Your task to perform on an android device: Search for Mexican restaurants on Maps Image 0: 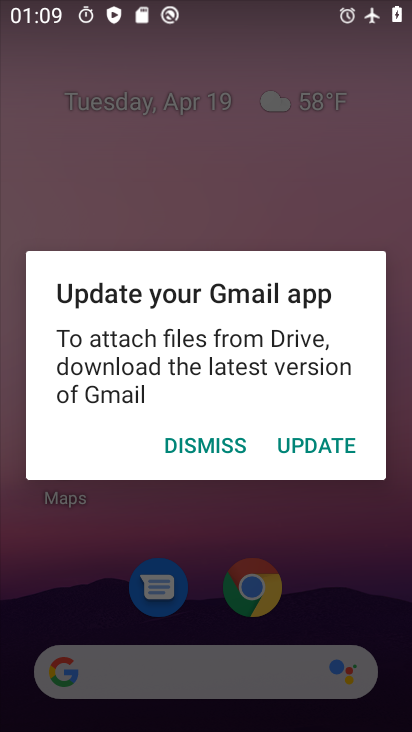
Step 0: press home button
Your task to perform on an android device: Search for Mexican restaurants on Maps Image 1: 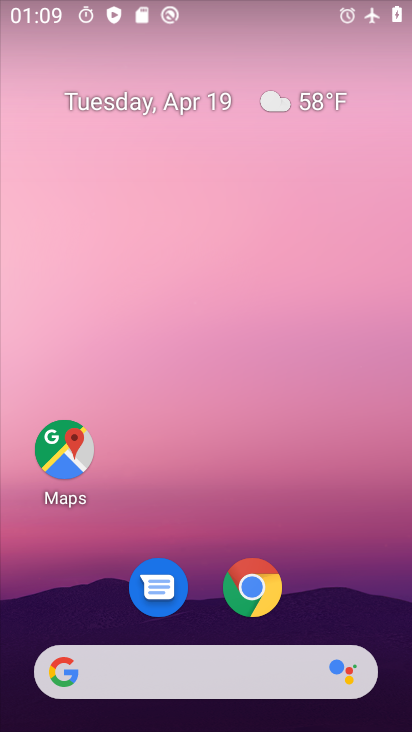
Step 1: click (75, 439)
Your task to perform on an android device: Search for Mexican restaurants on Maps Image 2: 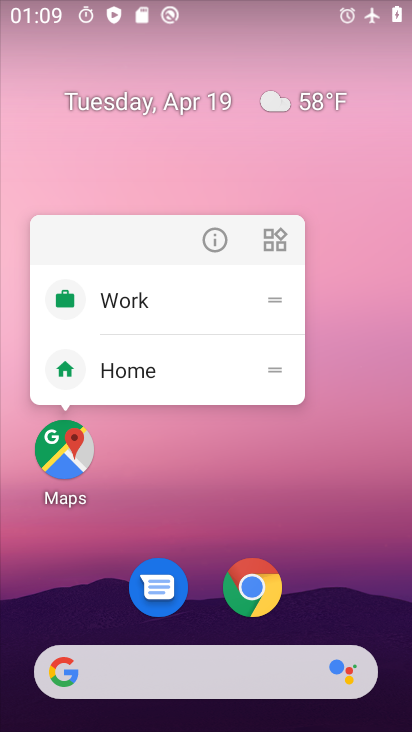
Step 2: click (49, 433)
Your task to perform on an android device: Search for Mexican restaurants on Maps Image 3: 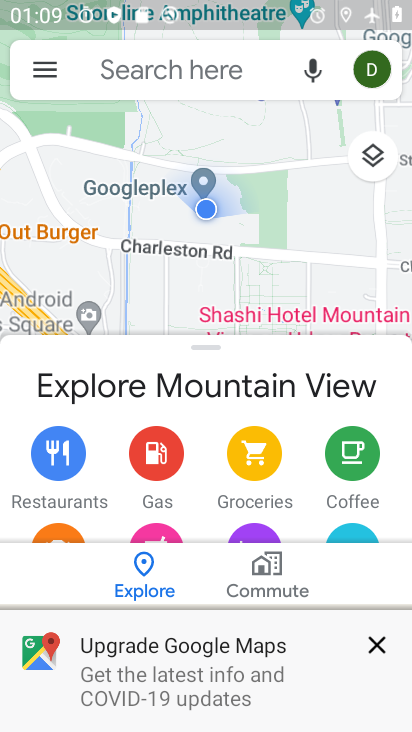
Step 3: click (376, 645)
Your task to perform on an android device: Search for Mexican restaurants on Maps Image 4: 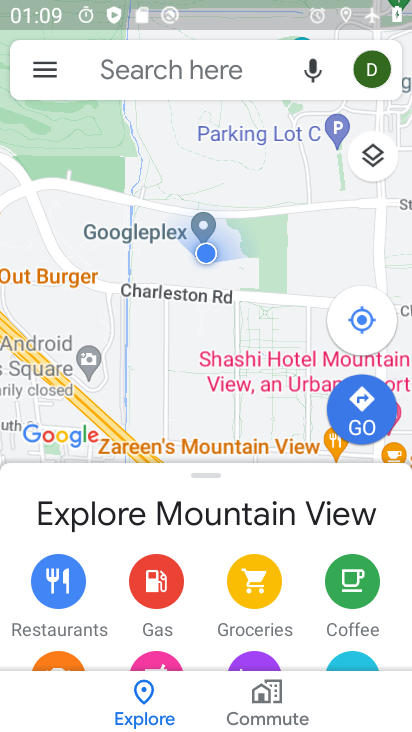
Step 4: click (194, 74)
Your task to perform on an android device: Search for Mexican restaurants on Maps Image 5: 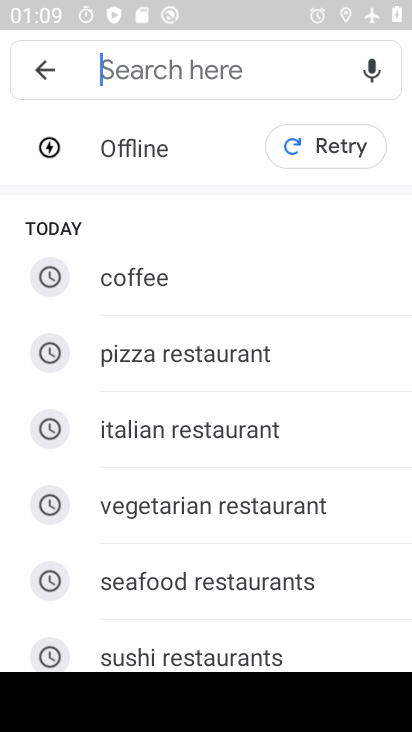
Step 5: type "mexic"
Your task to perform on an android device: Search for Mexican restaurants on Maps Image 6: 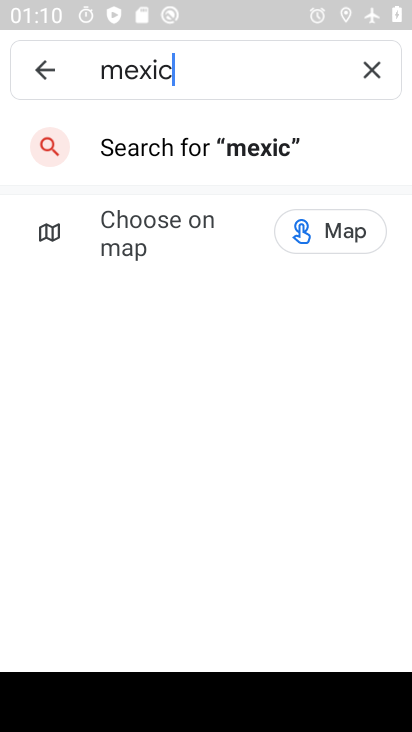
Step 6: click (380, 70)
Your task to perform on an android device: Search for Mexican restaurants on Maps Image 7: 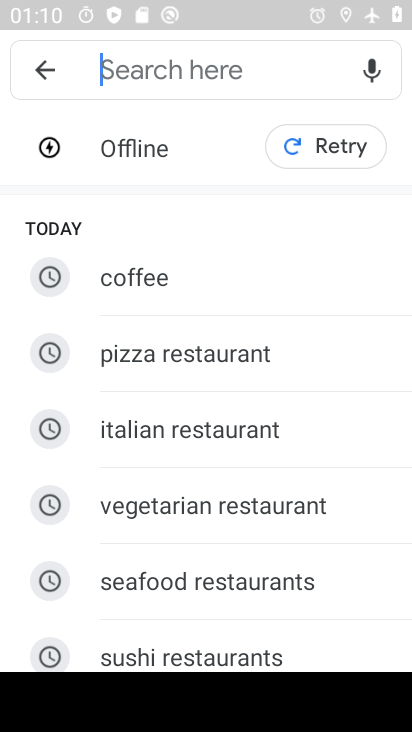
Step 7: type "mexican restaurants"
Your task to perform on an android device: Search for Mexican restaurants on Maps Image 8: 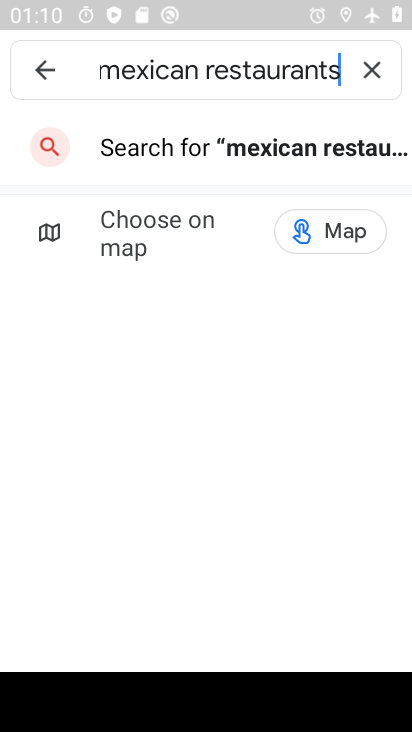
Step 8: click (239, 174)
Your task to perform on an android device: Search for Mexican restaurants on Maps Image 9: 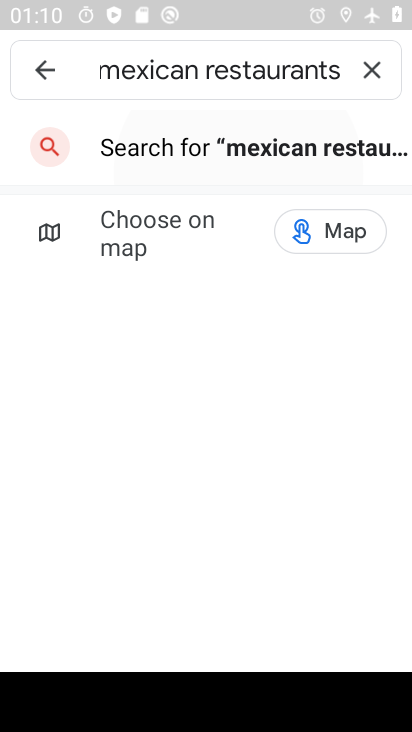
Step 9: click (246, 158)
Your task to perform on an android device: Search for Mexican restaurants on Maps Image 10: 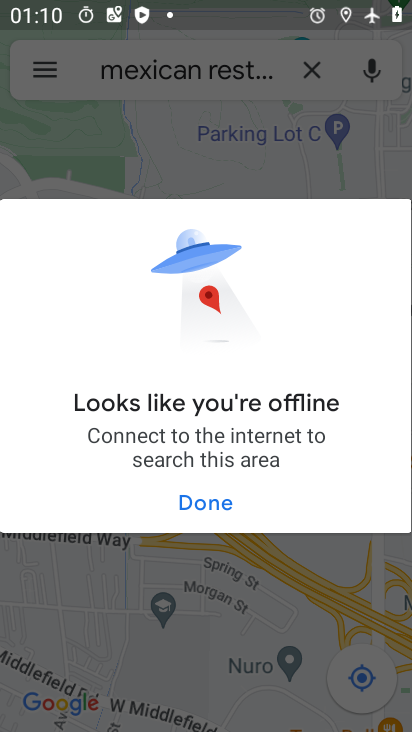
Step 10: task complete